Your task to perform on an android device: Find coffee shops on Maps Image 0: 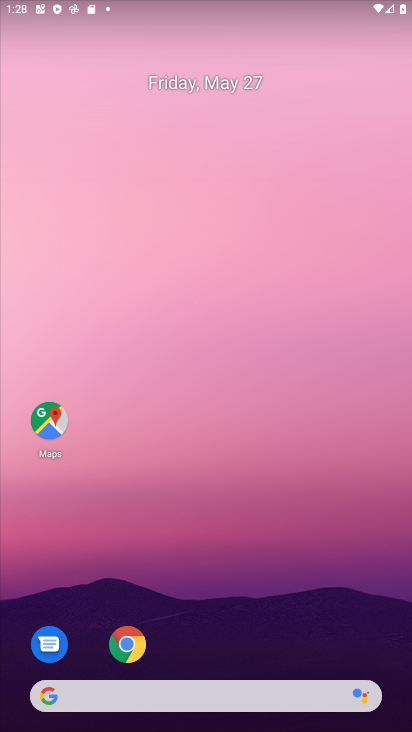
Step 0: drag from (355, 649) to (264, 69)
Your task to perform on an android device: Find coffee shops on Maps Image 1: 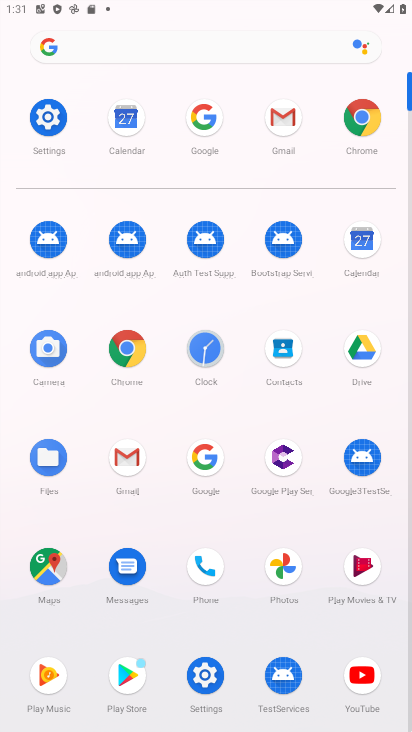
Step 1: click (62, 555)
Your task to perform on an android device: Find coffee shops on Maps Image 2: 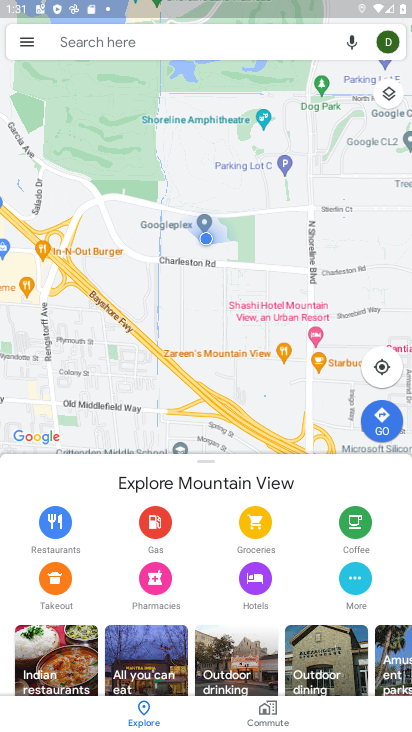
Step 2: click (187, 35)
Your task to perform on an android device: Find coffee shops on Maps Image 3: 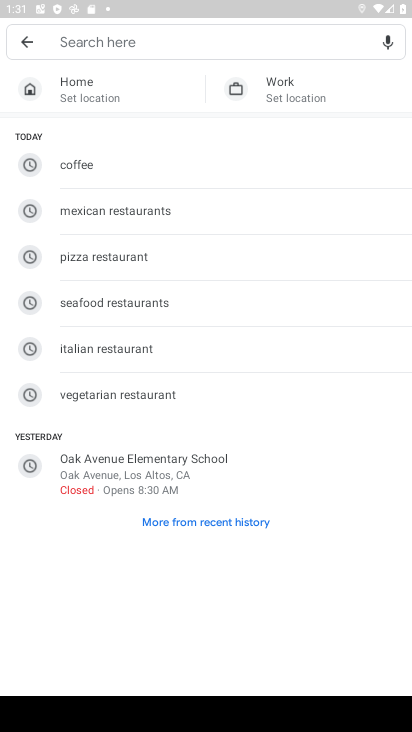
Step 3: click (84, 165)
Your task to perform on an android device: Find coffee shops on Maps Image 4: 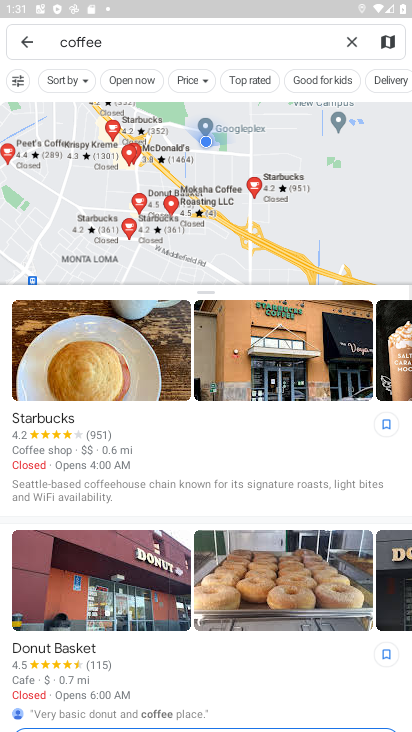
Step 4: task complete